Your task to perform on an android device: Do I have any events tomorrow? Image 0: 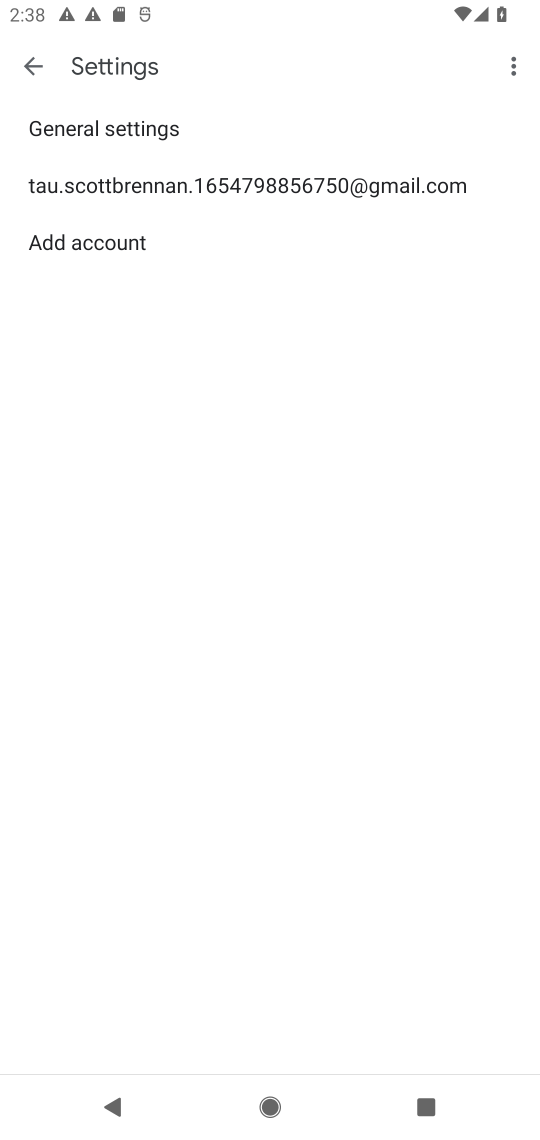
Step 0: press home button
Your task to perform on an android device: Do I have any events tomorrow? Image 1: 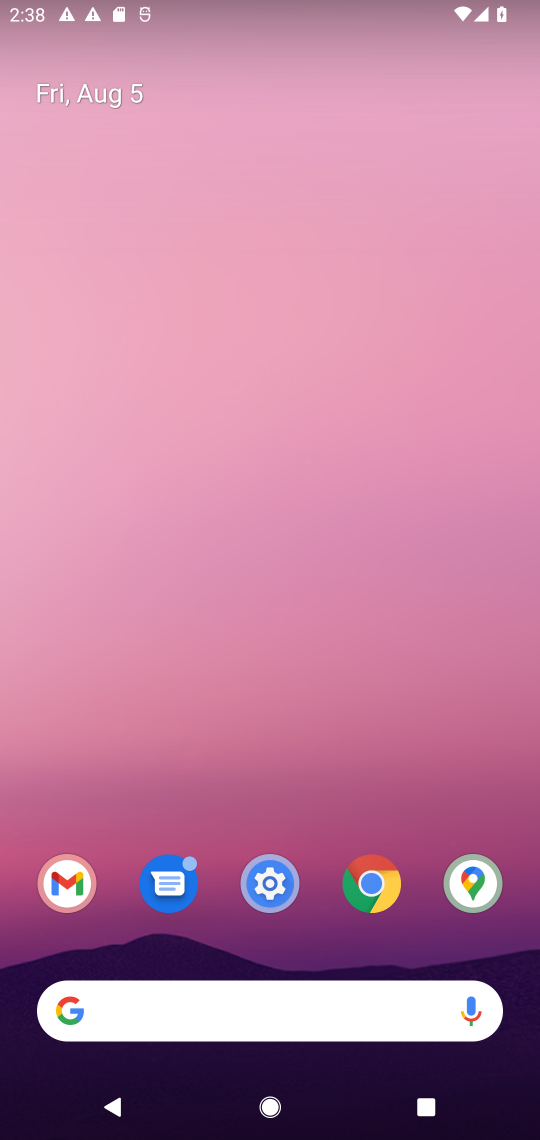
Step 1: drag from (305, 842) to (306, 6)
Your task to perform on an android device: Do I have any events tomorrow? Image 2: 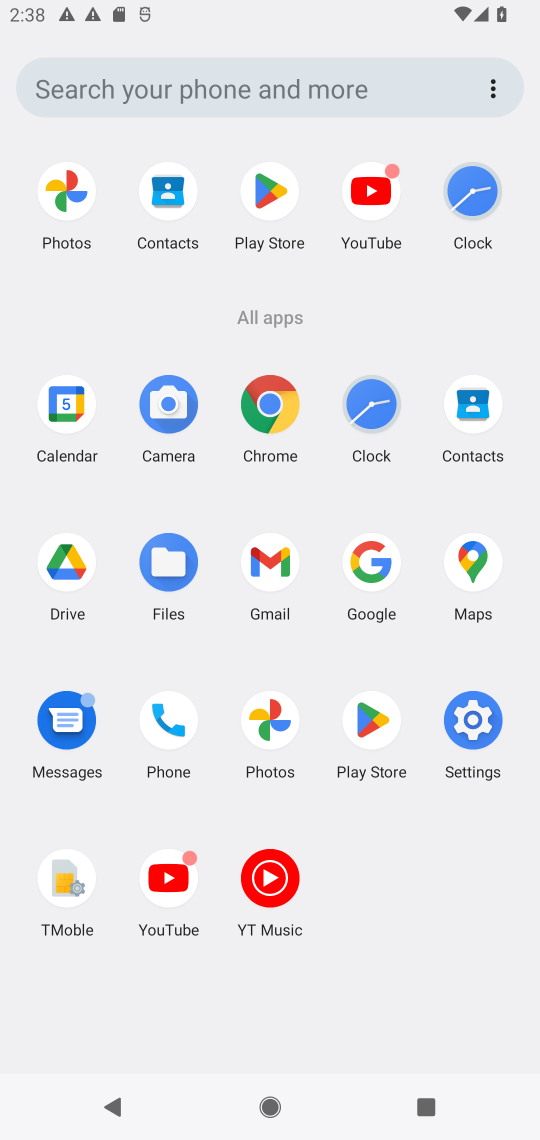
Step 2: click (78, 411)
Your task to perform on an android device: Do I have any events tomorrow? Image 3: 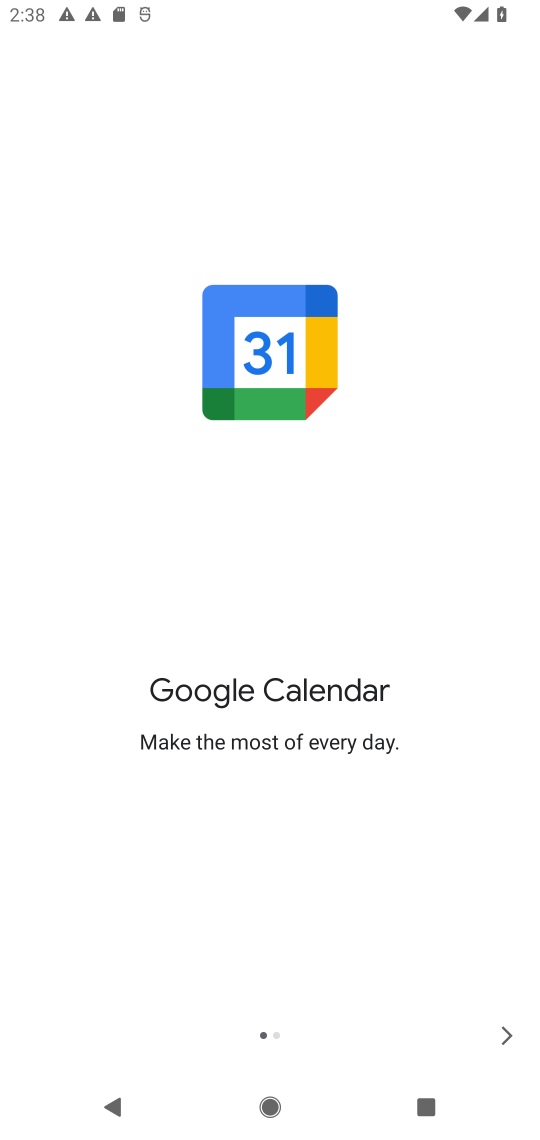
Step 3: click (518, 1028)
Your task to perform on an android device: Do I have any events tomorrow? Image 4: 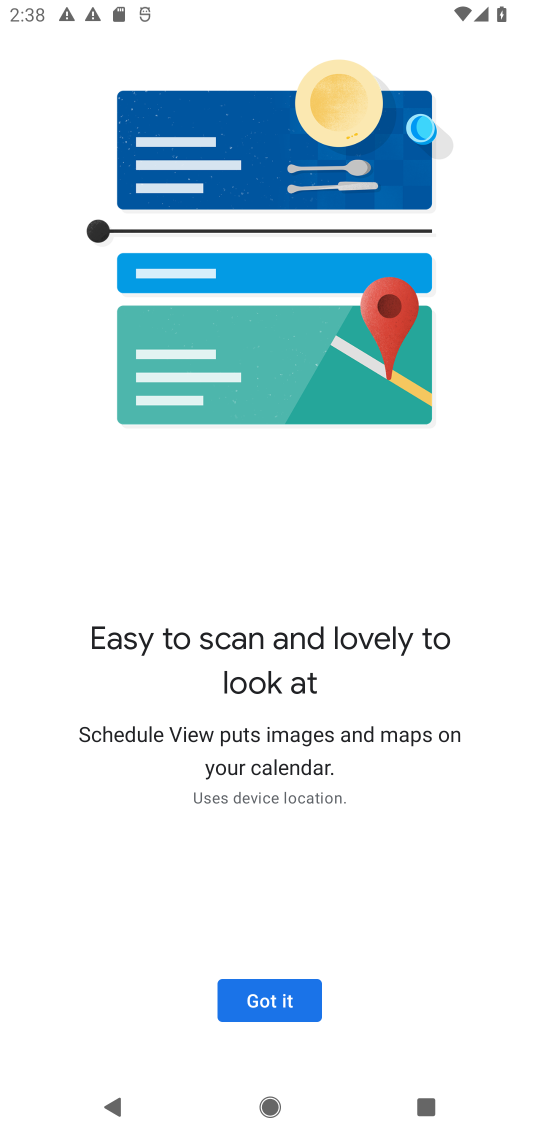
Step 4: click (248, 1004)
Your task to perform on an android device: Do I have any events tomorrow? Image 5: 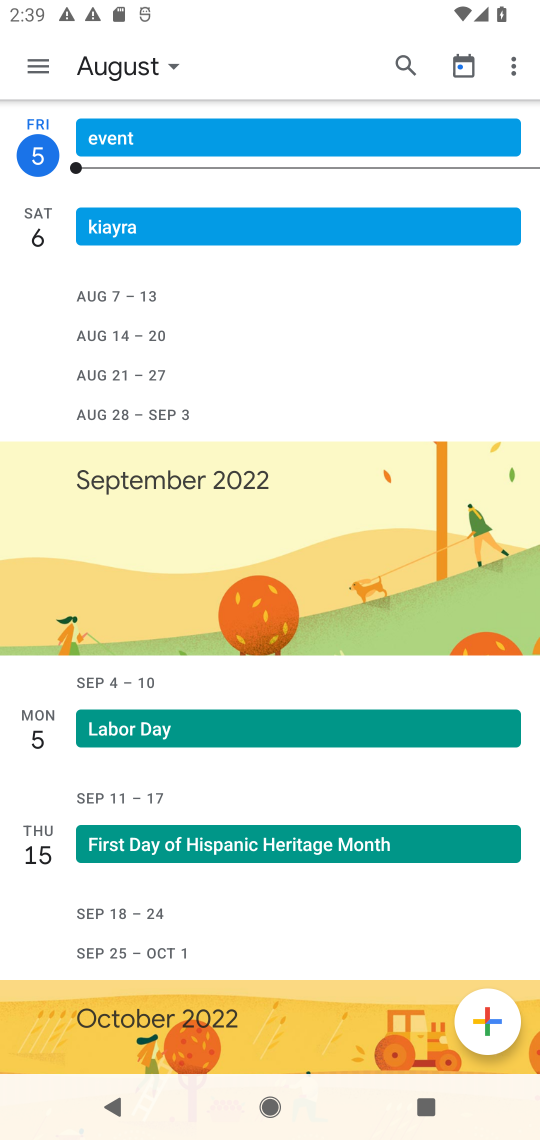
Step 5: click (36, 75)
Your task to perform on an android device: Do I have any events tomorrow? Image 6: 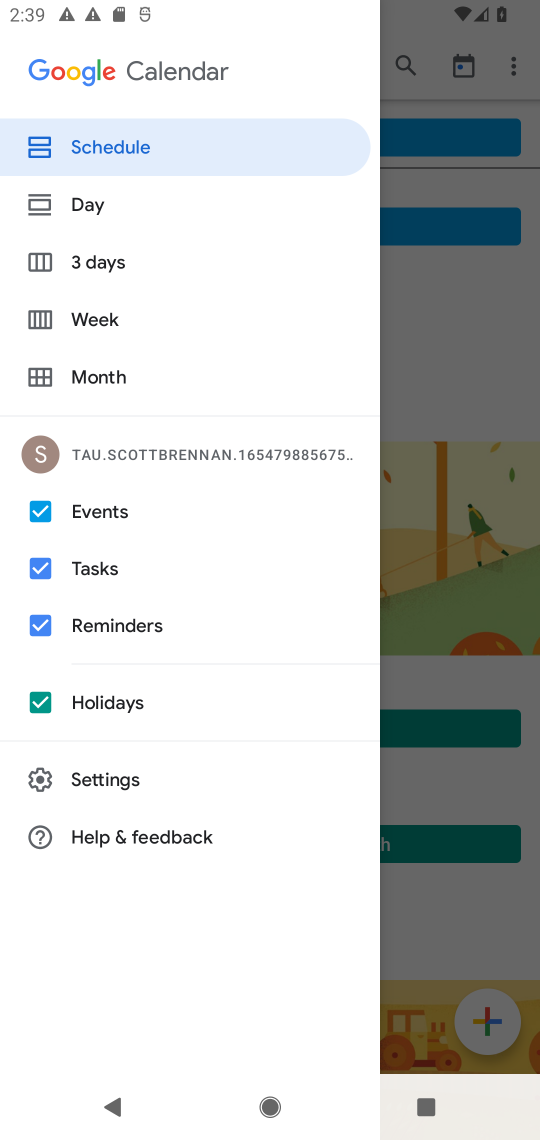
Step 6: click (78, 194)
Your task to perform on an android device: Do I have any events tomorrow? Image 7: 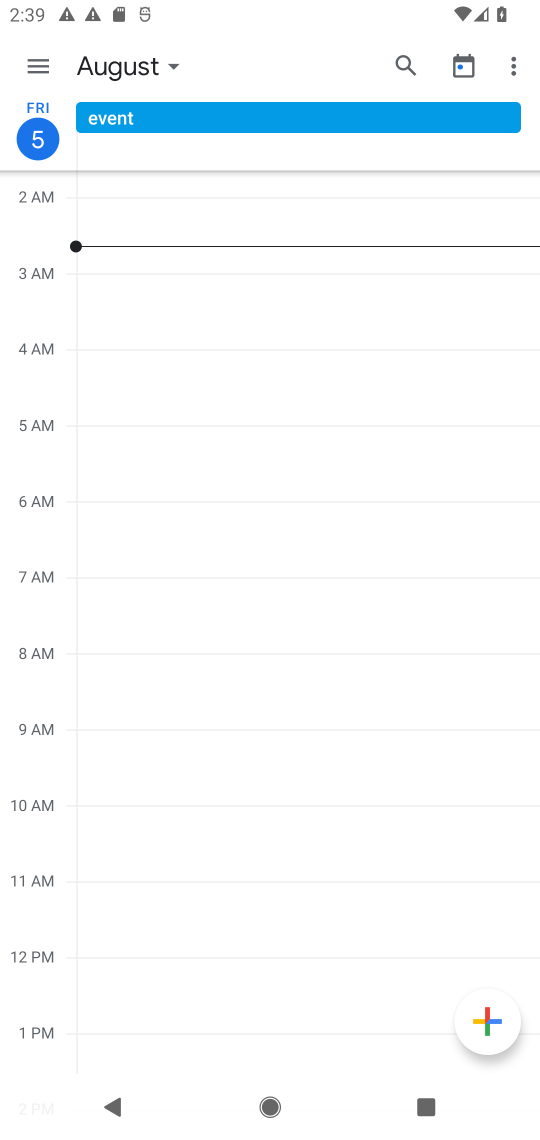
Step 7: click (172, 64)
Your task to perform on an android device: Do I have any events tomorrow? Image 8: 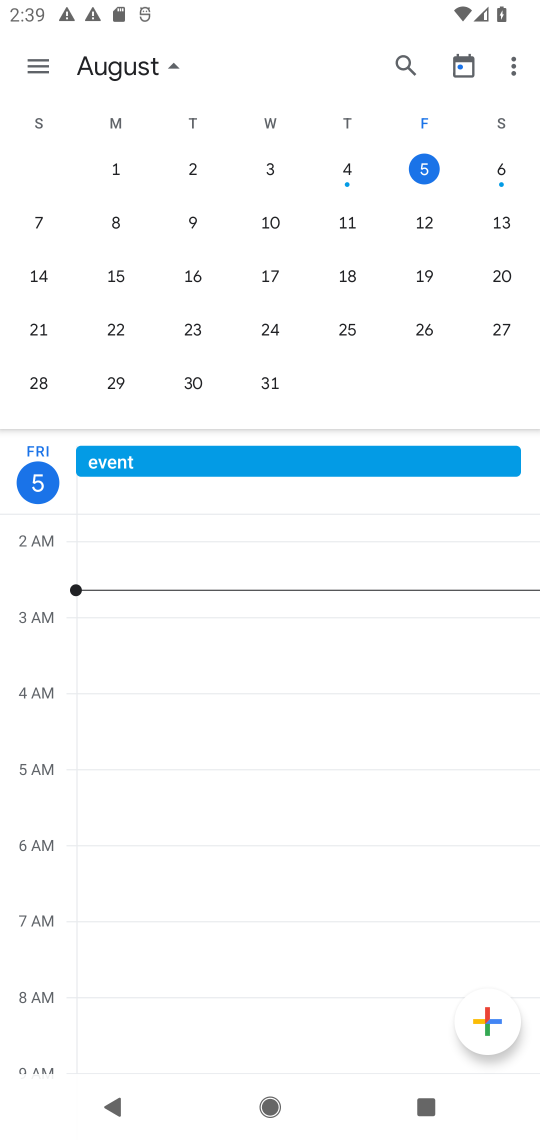
Step 8: click (499, 170)
Your task to perform on an android device: Do I have any events tomorrow? Image 9: 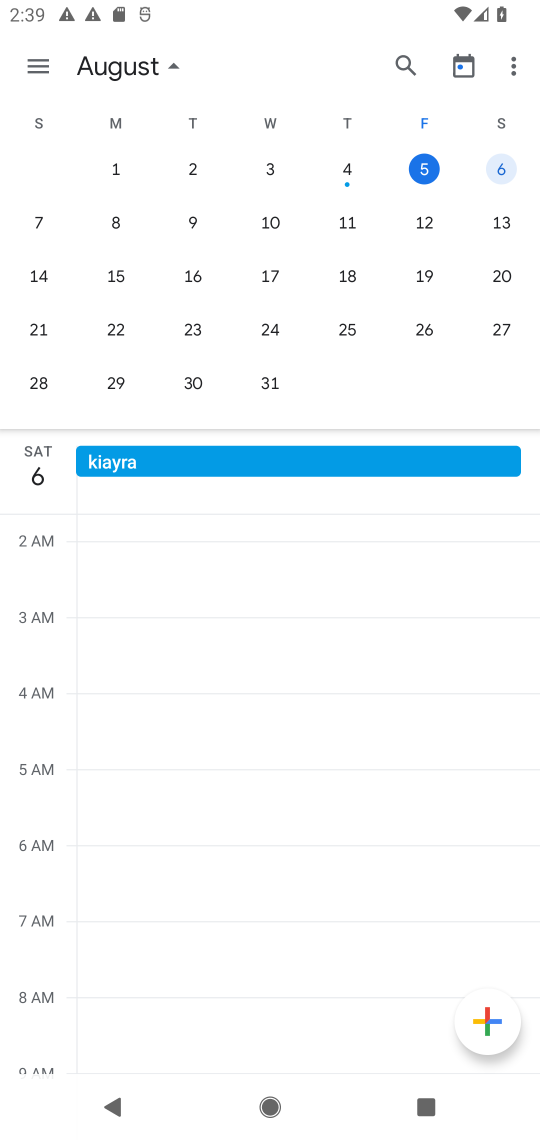
Step 9: click (46, 485)
Your task to perform on an android device: Do I have any events tomorrow? Image 10: 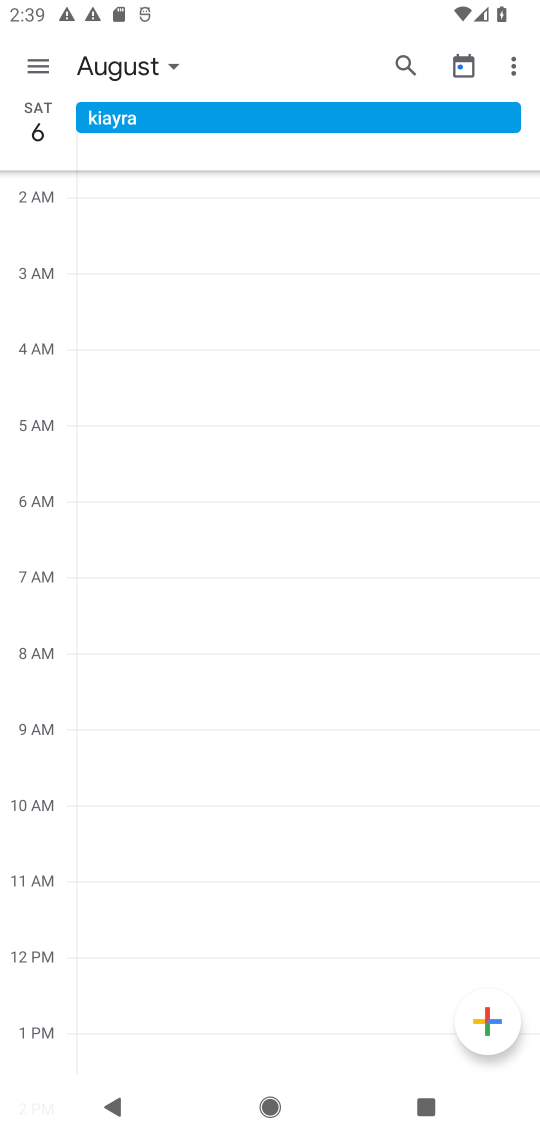
Step 10: task complete